Your task to perform on an android device: What's on my calendar tomorrow? Image 0: 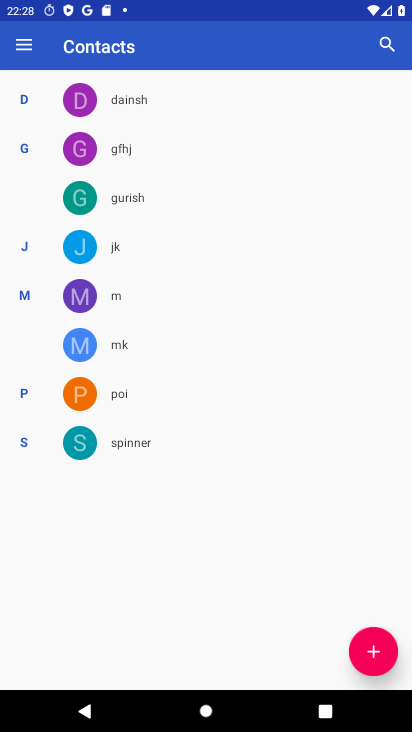
Step 0: press home button
Your task to perform on an android device: What's on my calendar tomorrow? Image 1: 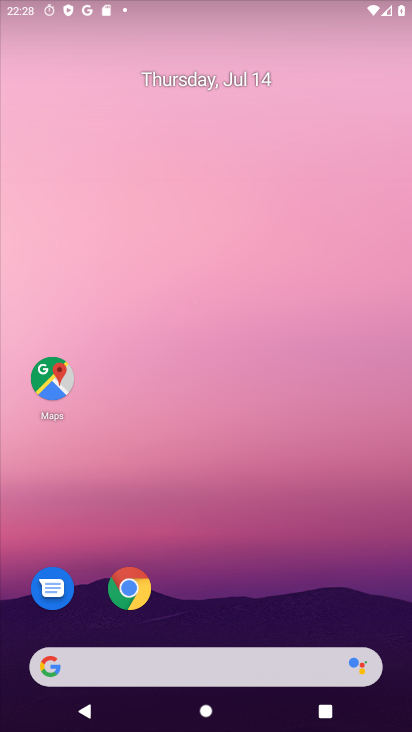
Step 1: drag from (255, 591) to (307, 109)
Your task to perform on an android device: What's on my calendar tomorrow? Image 2: 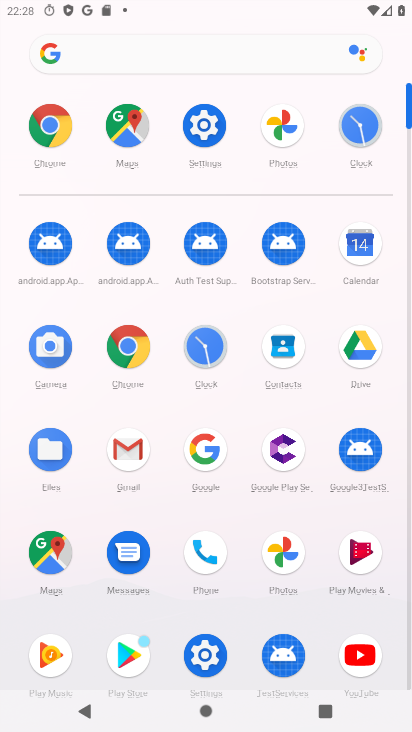
Step 2: click (365, 244)
Your task to perform on an android device: What's on my calendar tomorrow? Image 3: 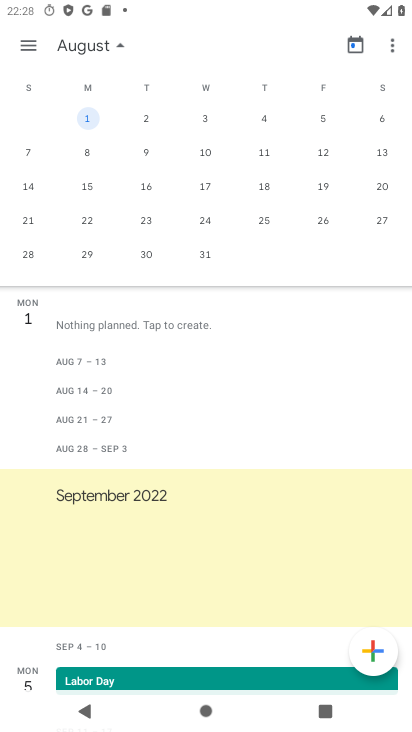
Step 3: drag from (122, 263) to (409, 234)
Your task to perform on an android device: What's on my calendar tomorrow? Image 4: 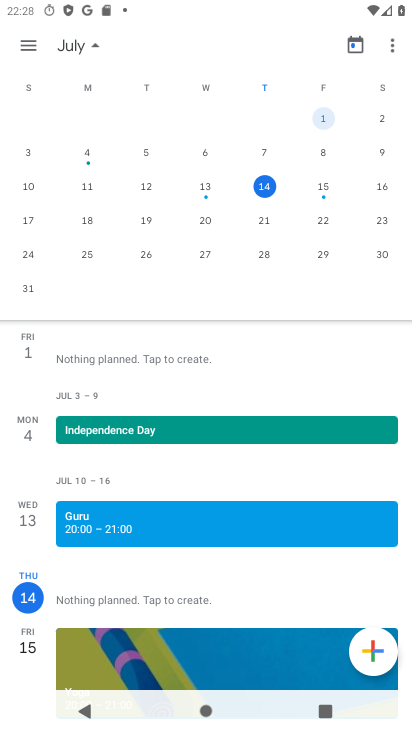
Step 4: click (323, 187)
Your task to perform on an android device: What's on my calendar tomorrow? Image 5: 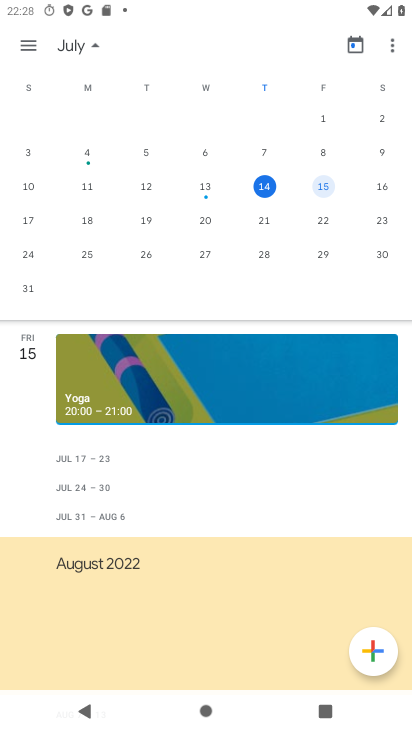
Step 5: task complete